Your task to perform on an android device: toggle location history Image 0: 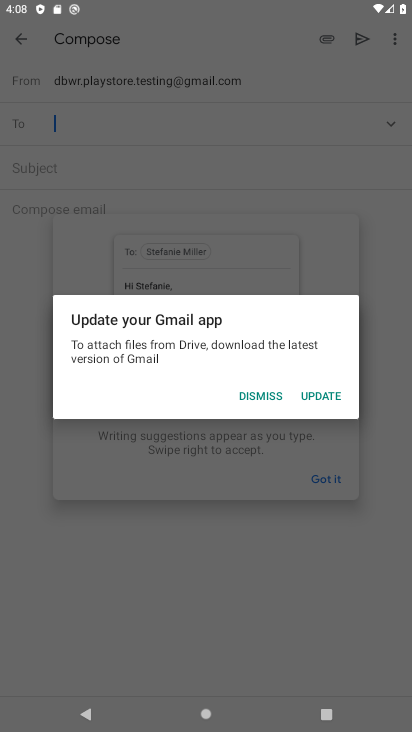
Step 0: press home button
Your task to perform on an android device: toggle location history Image 1: 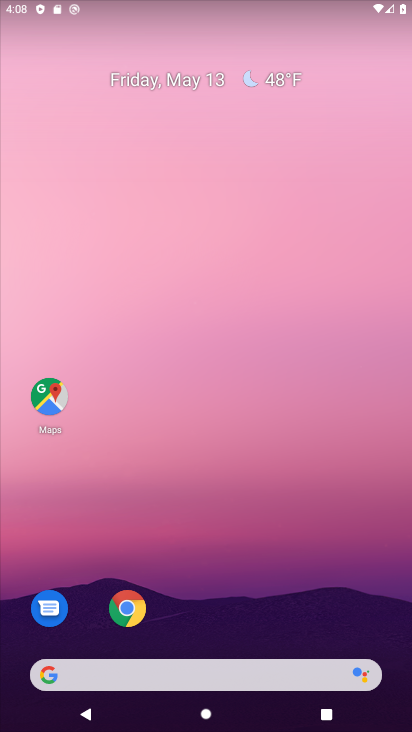
Step 1: drag from (186, 715) to (187, 146)
Your task to perform on an android device: toggle location history Image 2: 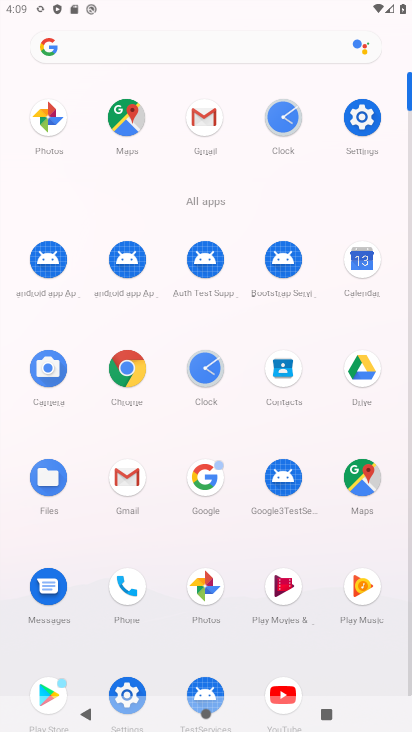
Step 2: click (357, 118)
Your task to perform on an android device: toggle location history Image 3: 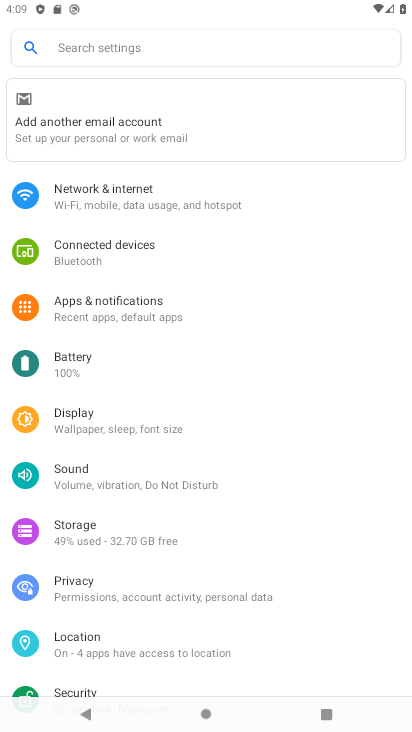
Step 3: click (87, 644)
Your task to perform on an android device: toggle location history Image 4: 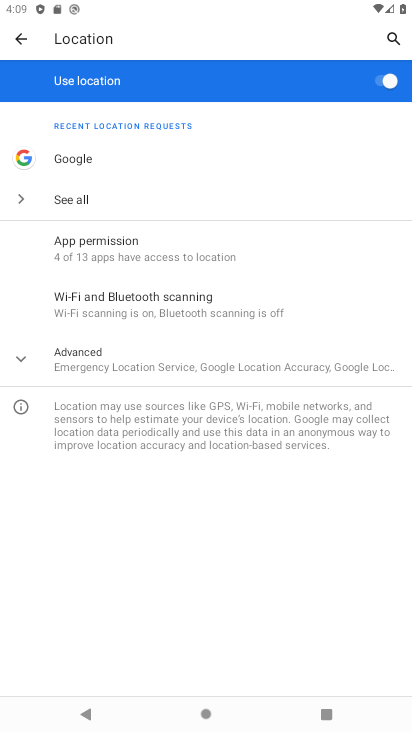
Step 4: click (108, 355)
Your task to perform on an android device: toggle location history Image 5: 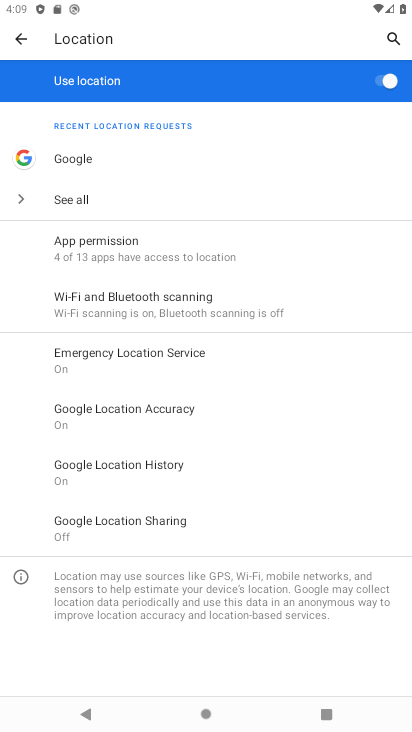
Step 5: click (136, 468)
Your task to perform on an android device: toggle location history Image 6: 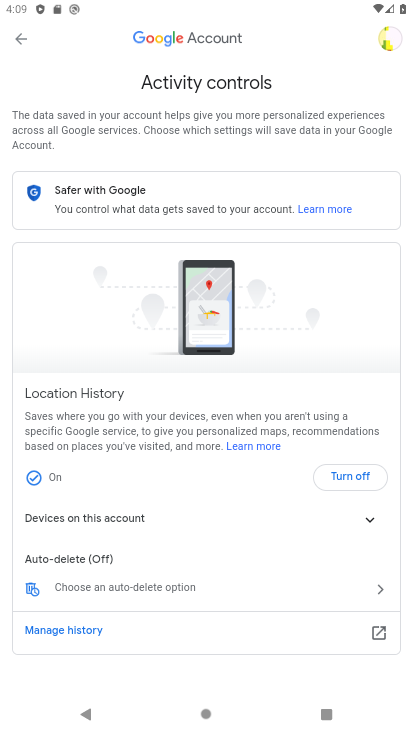
Step 6: click (348, 476)
Your task to perform on an android device: toggle location history Image 7: 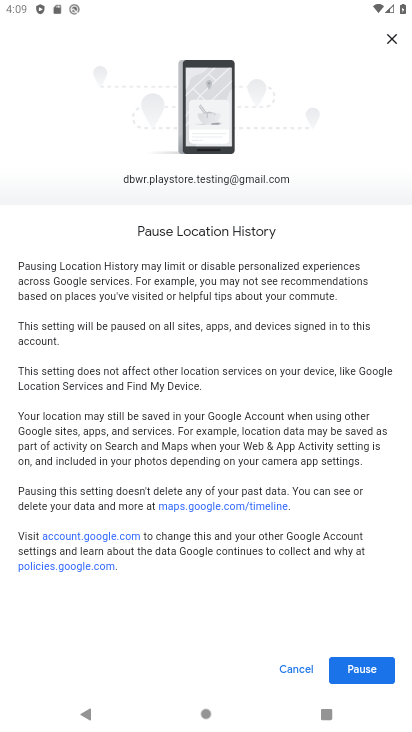
Step 7: click (367, 667)
Your task to perform on an android device: toggle location history Image 8: 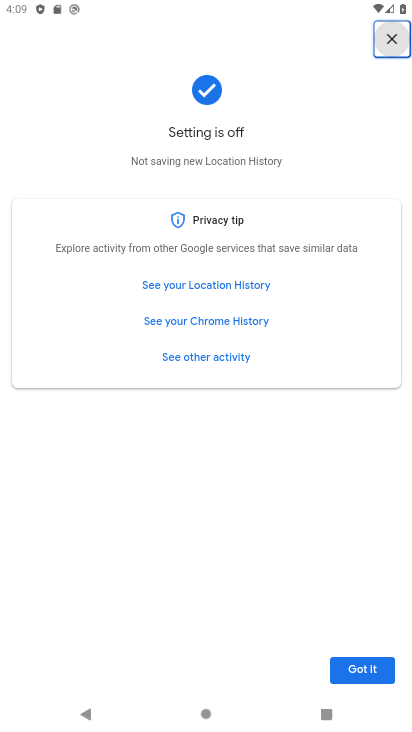
Step 8: click (354, 656)
Your task to perform on an android device: toggle location history Image 9: 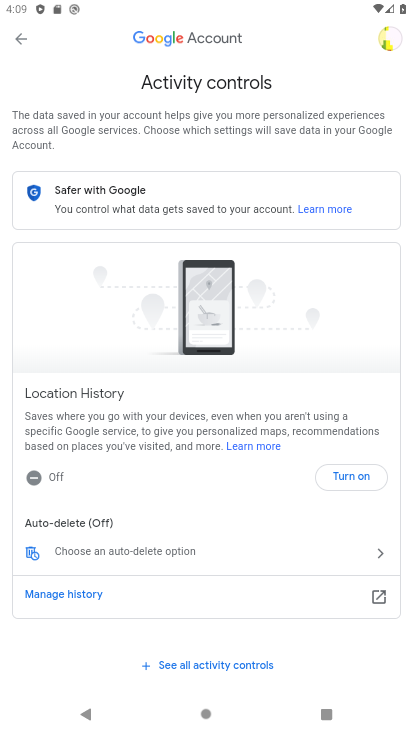
Step 9: task complete